Your task to perform on an android device: toggle data saver in the chrome app Image 0: 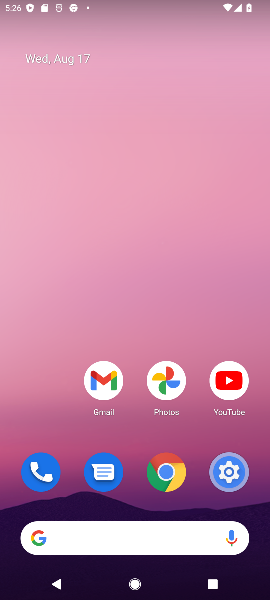
Step 0: click (171, 465)
Your task to perform on an android device: toggle data saver in the chrome app Image 1: 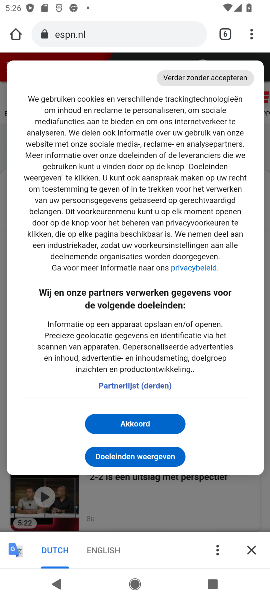
Step 1: click (253, 40)
Your task to perform on an android device: toggle data saver in the chrome app Image 2: 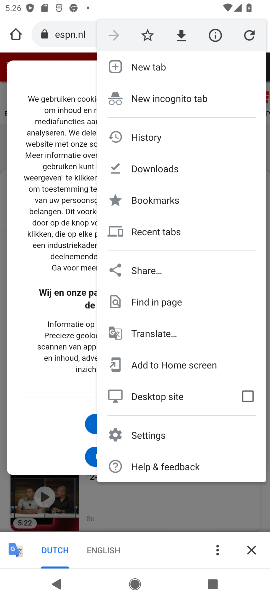
Step 2: click (160, 432)
Your task to perform on an android device: toggle data saver in the chrome app Image 3: 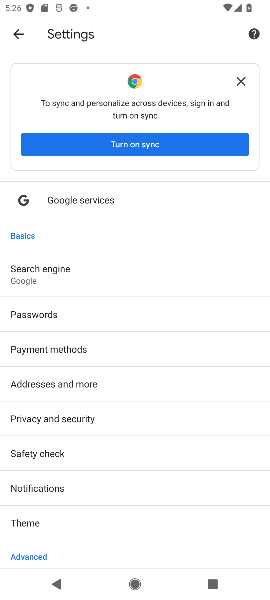
Step 3: drag from (99, 511) to (121, 307)
Your task to perform on an android device: toggle data saver in the chrome app Image 4: 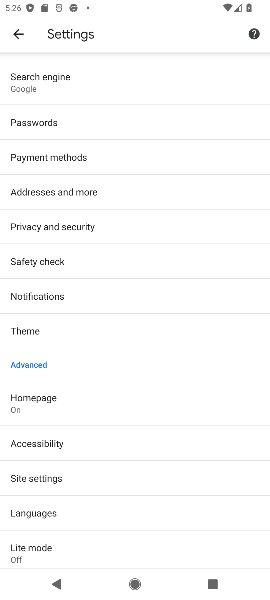
Step 4: click (93, 480)
Your task to perform on an android device: toggle data saver in the chrome app Image 5: 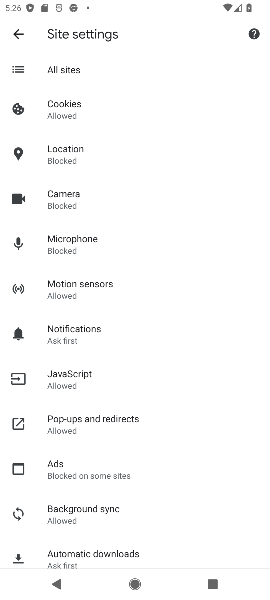
Step 5: click (15, 34)
Your task to perform on an android device: toggle data saver in the chrome app Image 6: 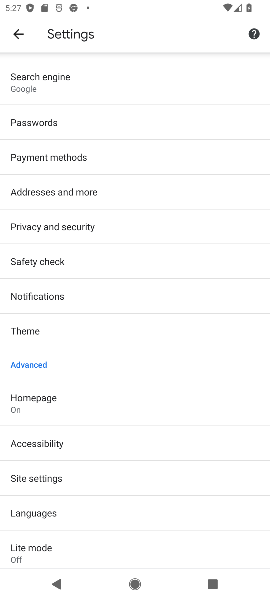
Step 6: click (66, 541)
Your task to perform on an android device: toggle data saver in the chrome app Image 7: 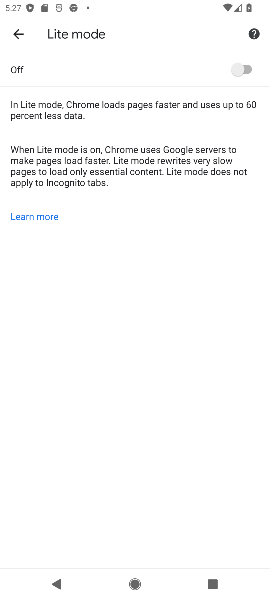
Step 7: click (250, 68)
Your task to perform on an android device: toggle data saver in the chrome app Image 8: 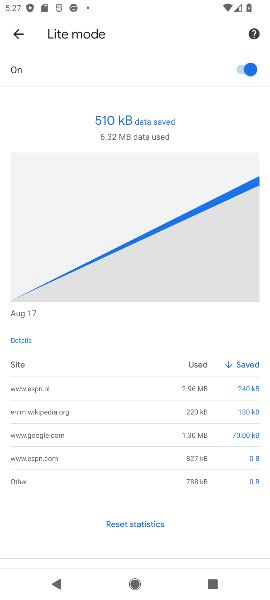
Step 8: task complete